Your task to perform on an android device: set an alarm Image 0: 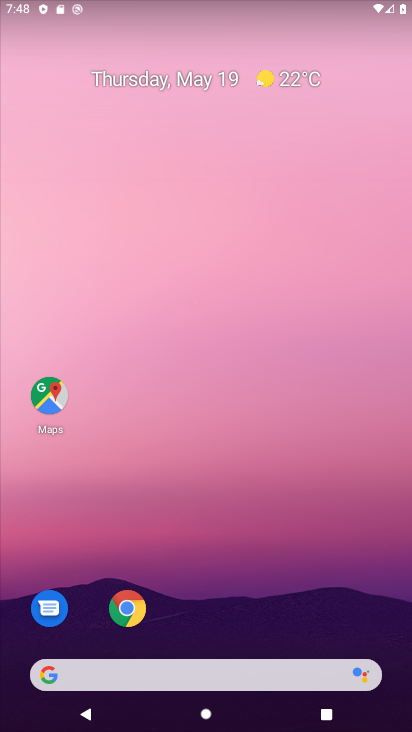
Step 0: drag from (284, 709) to (134, 9)
Your task to perform on an android device: set an alarm Image 1: 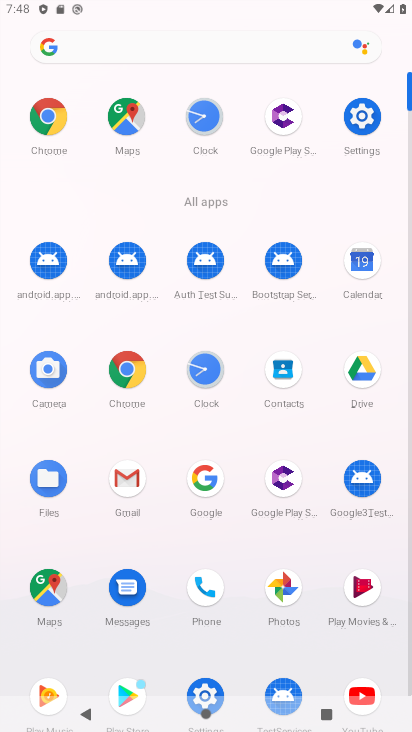
Step 1: click (209, 128)
Your task to perform on an android device: set an alarm Image 2: 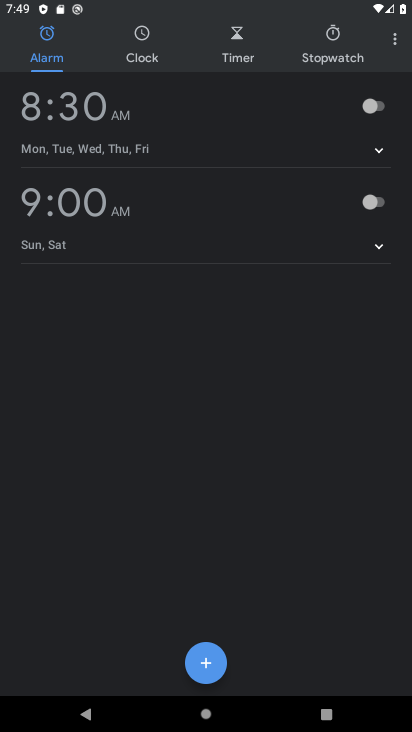
Step 2: click (210, 662)
Your task to perform on an android device: set an alarm Image 3: 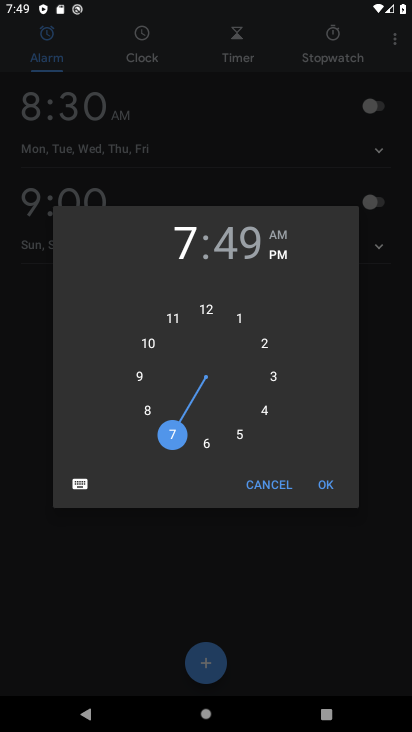
Step 3: click (325, 478)
Your task to perform on an android device: set an alarm Image 4: 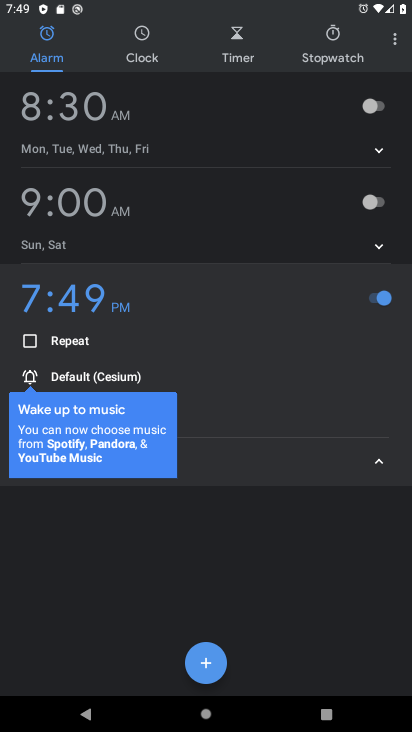
Step 4: task complete